Your task to perform on an android device: snooze an email in the gmail app Image 0: 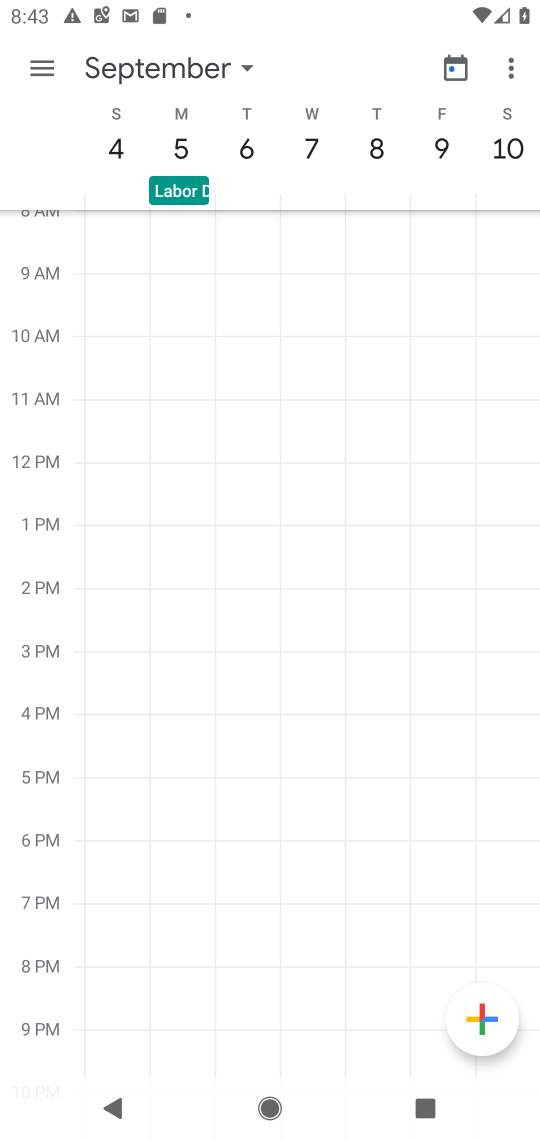
Step 0: press home button
Your task to perform on an android device: snooze an email in the gmail app Image 1: 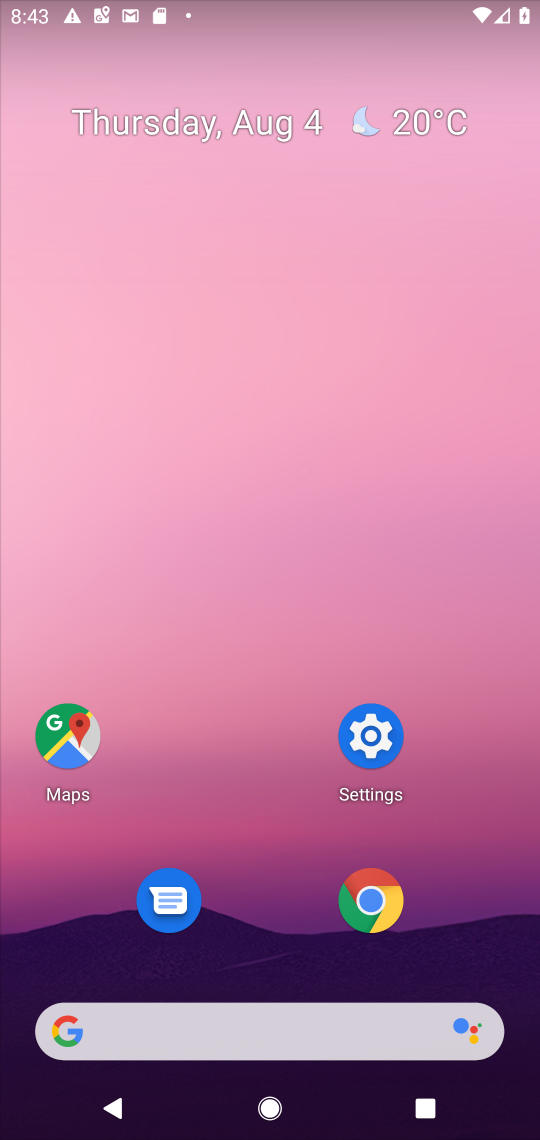
Step 1: drag from (267, 1001) to (377, 201)
Your task to perform on an android device: snooze an email in the gmail app Image 2: 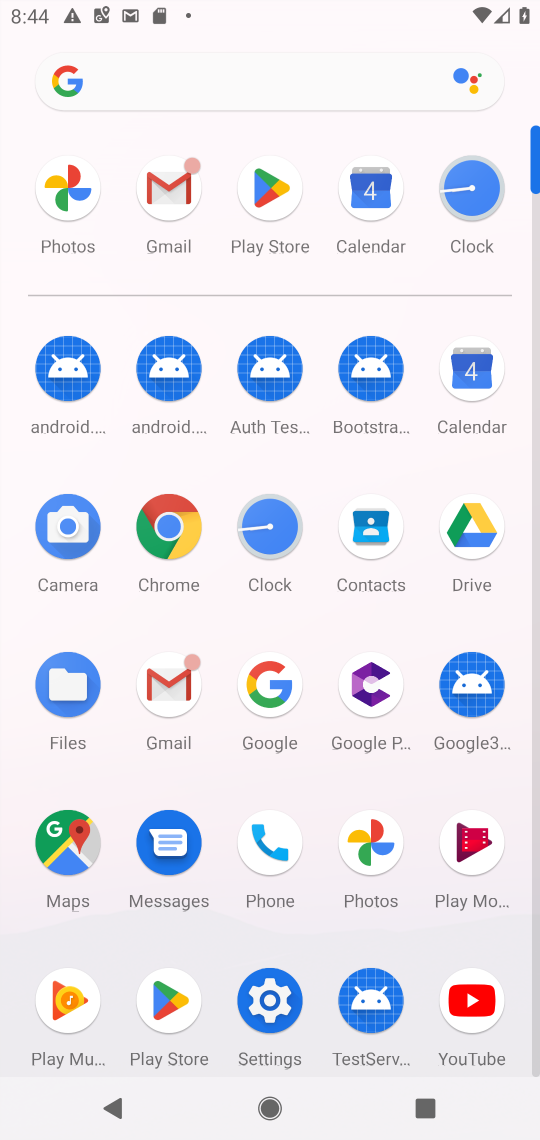
Step 2: click (174, 183)
Your task to perform on an android device: snooze an email in the gmail app Image 3: 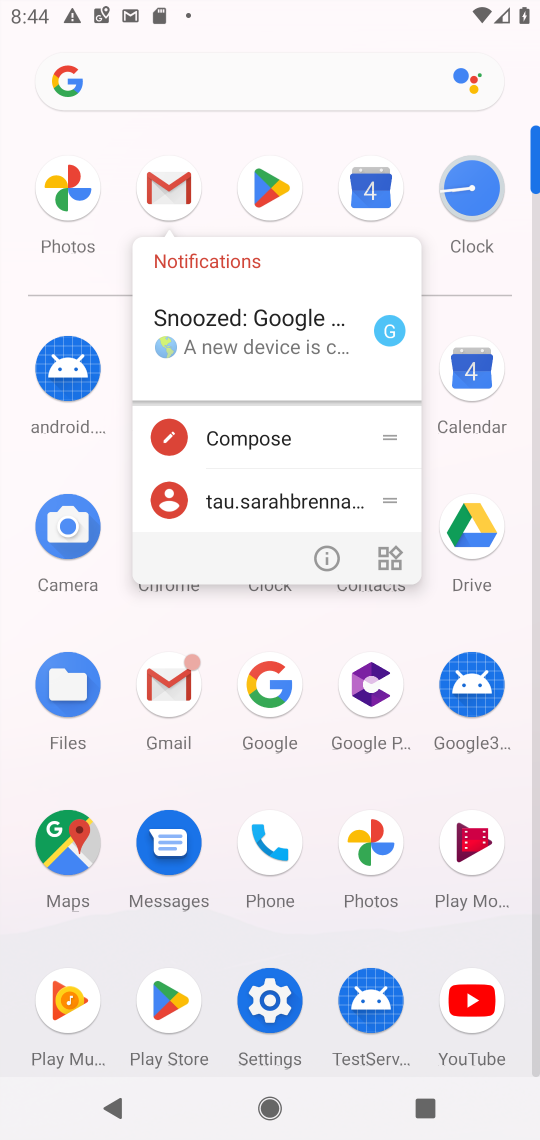
Step 3: click (141, 191)
Your task to perform on an android device: snooze an email in the gmail app Image 4: 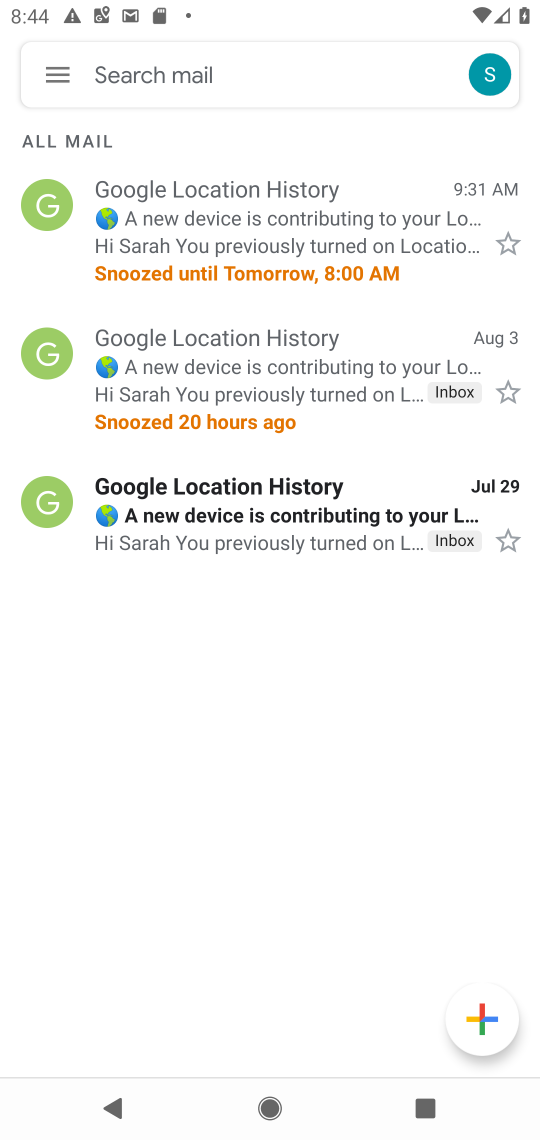
Step 4: click (66, 72)
Your task to perform on an android device: snooze an email in the gmail app Image 5: 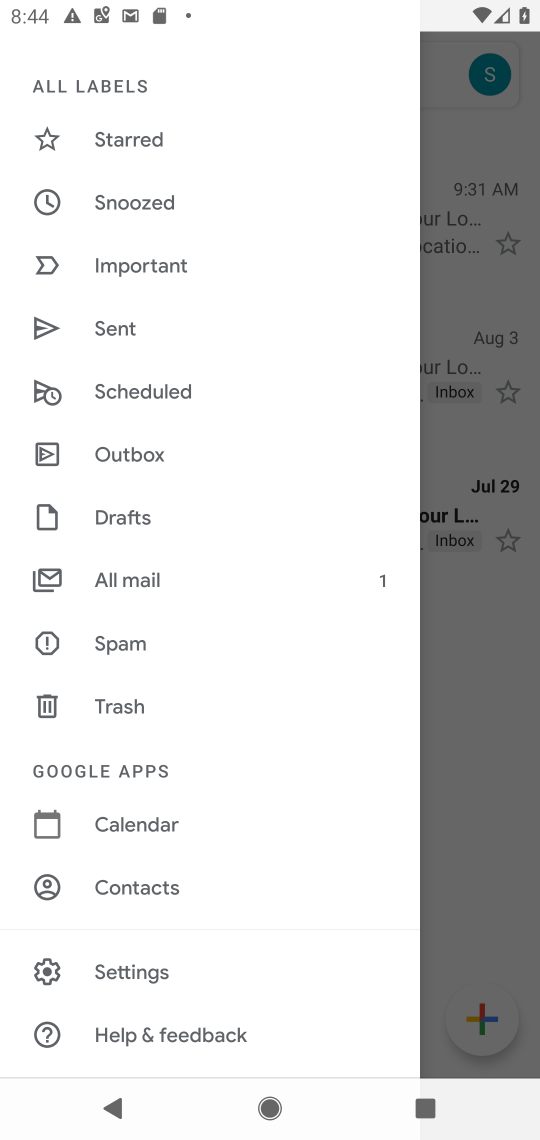
Step 5: click (164, 573)
Your task to perform on an android device: snooze an email in the gmail app Image 6: 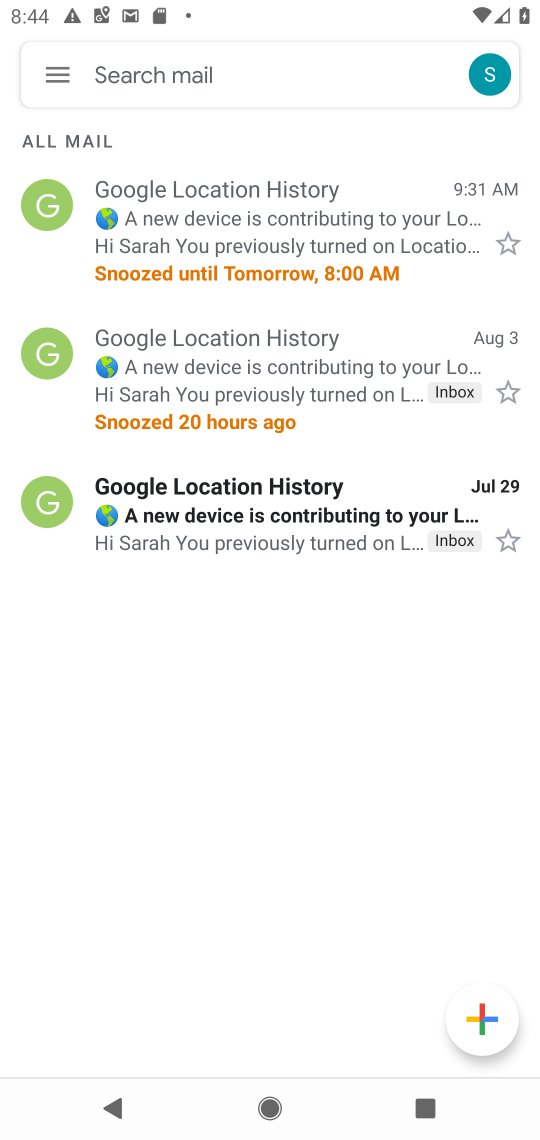
Step 6: click (55, 497)
Your task to perform on an android device: snooze an email in the gmail app Image 7: 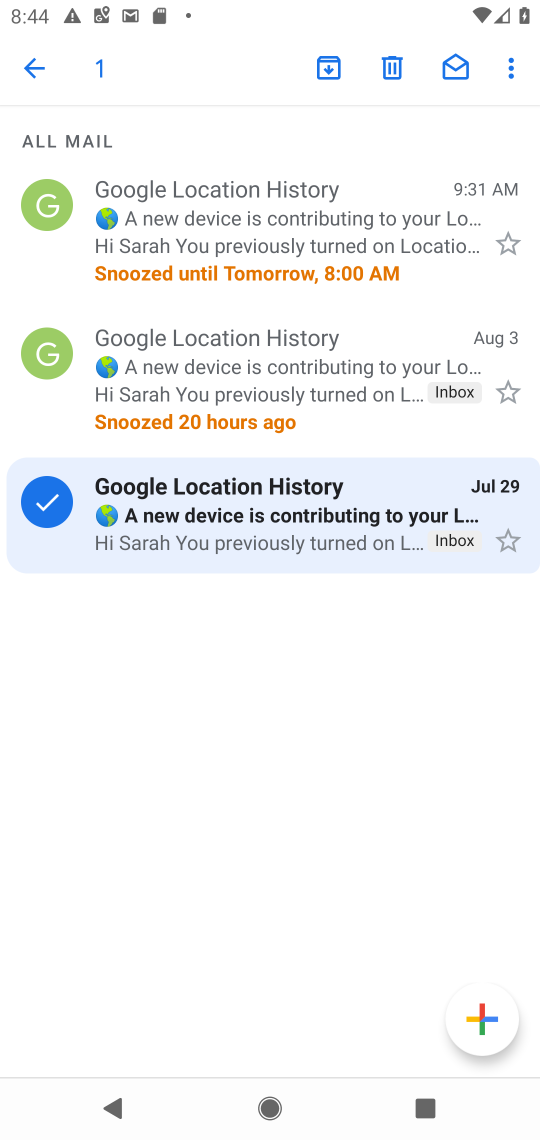
Step 7: click (506, 71)
Your task to perform on an android device: snooze an email in the gmail app Image 8: 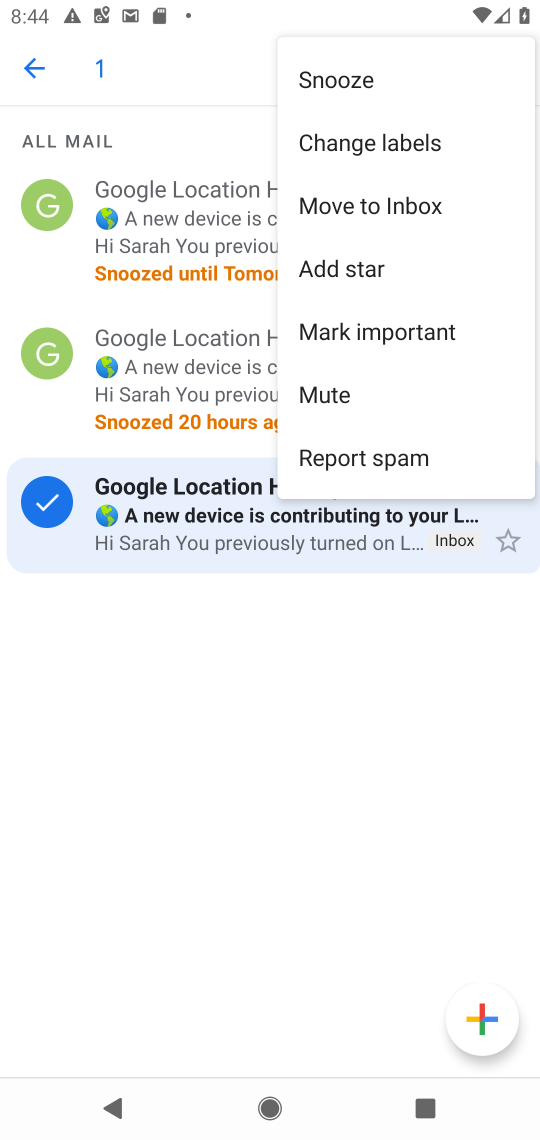
Step 8: click (332, 74)
Your task to perform on an android device: snooze an email in the gmail app Image 9: 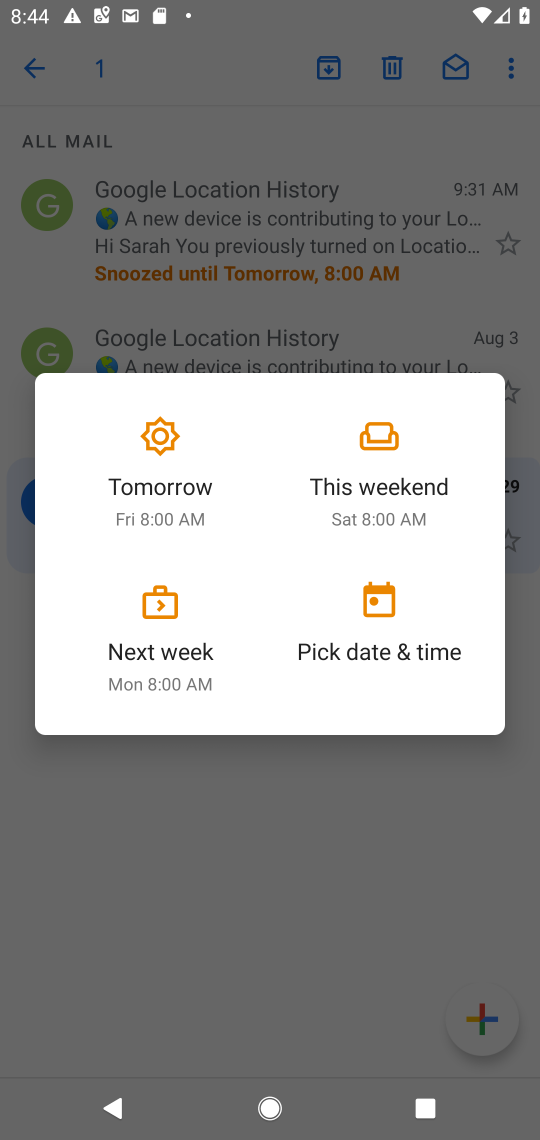
Step 9: click (154, 508)
Your task to perform on an android device: snooze an email in the gmail app Image 10: 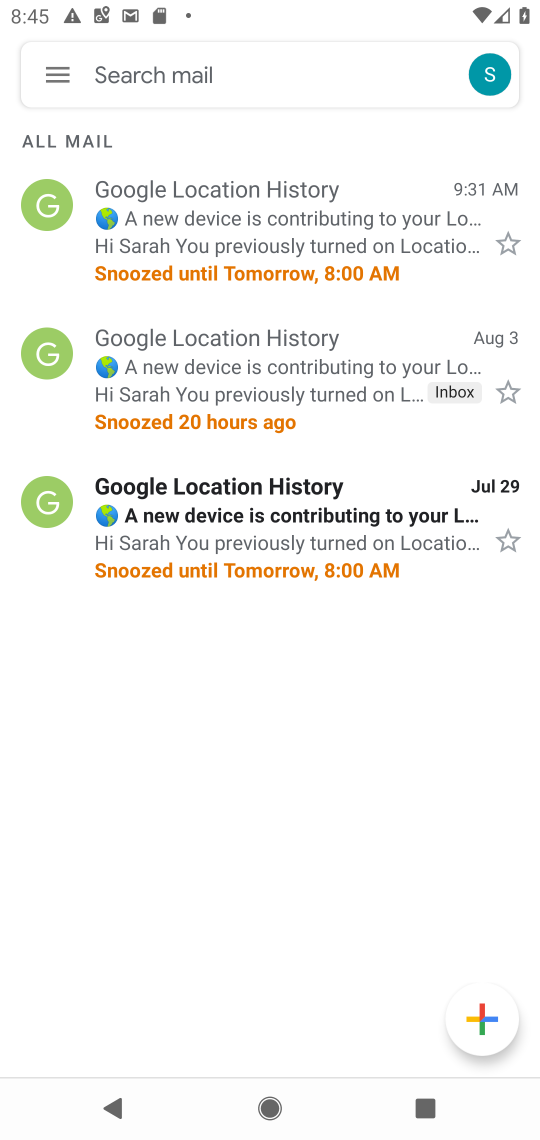
Step 10: task complete